Your task to perform on an android device: toggle airplane mode Image 0: 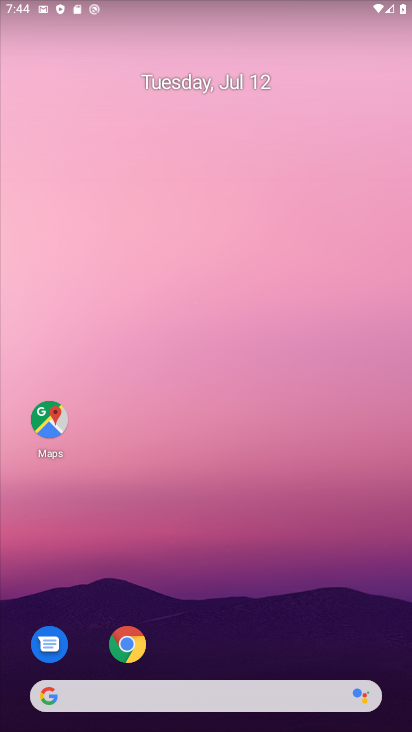
Step 0: drag from (233, 639) to (322, 6)
Your task to perform on an android device: toggle airplane mode Image 1: 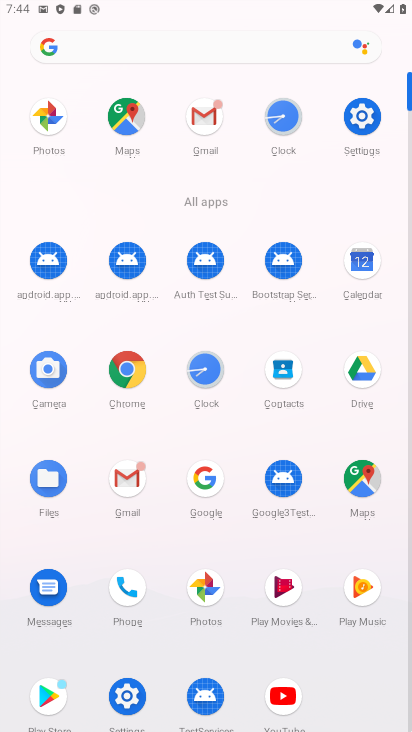
Step 1: click (341, 125)
Your task to perform on an android device: toggle airplane mode Image 2: 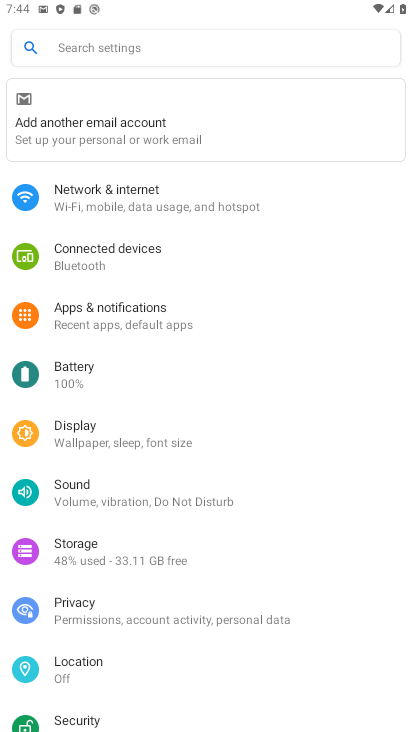
Step 2: click (169, 201)
Your task to perform on an android device: toggle airplane mode Image 3: 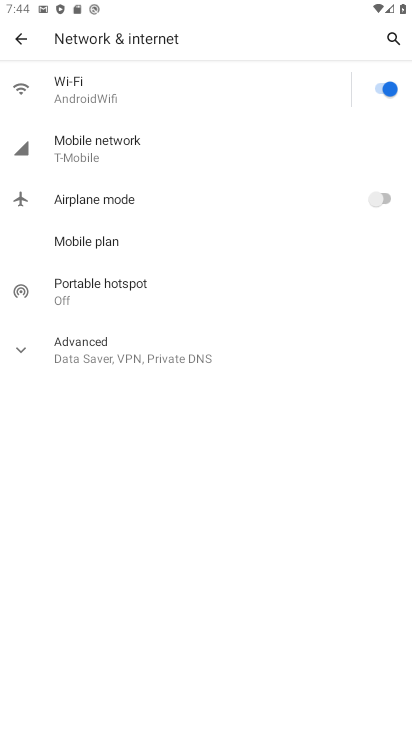
Step 3: click (381, 200)
Your task to perform on an android device: toggle airplane mode Image 4: 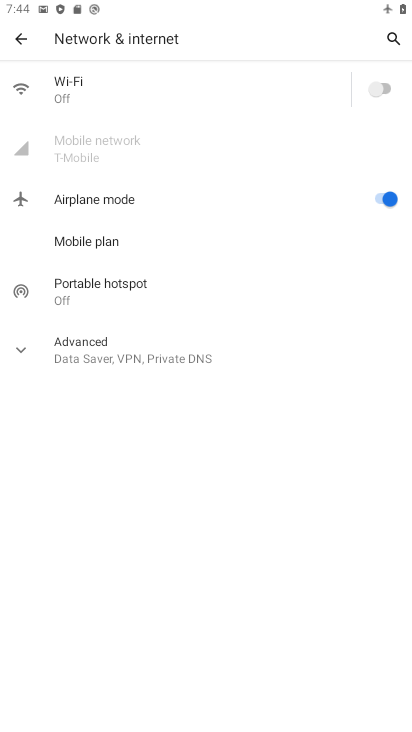
Step 4: task complete